Your task to perform on an android device: Is it going to rain today? Image 0: 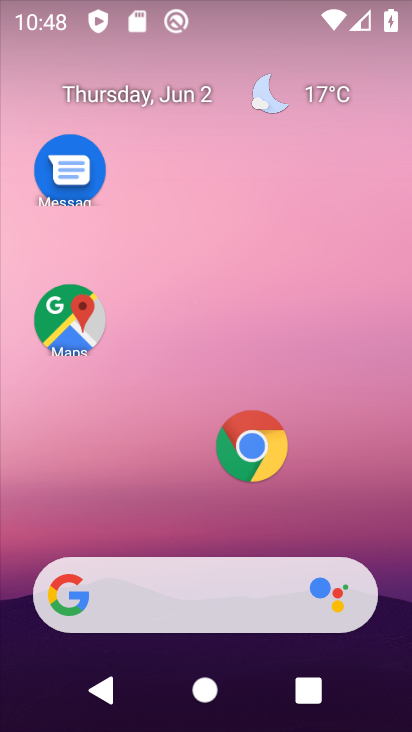
Step 0: drag from (354, 413) to (278, 100)
Your task to perform on an android device: Is it going to rain today? Image 1: 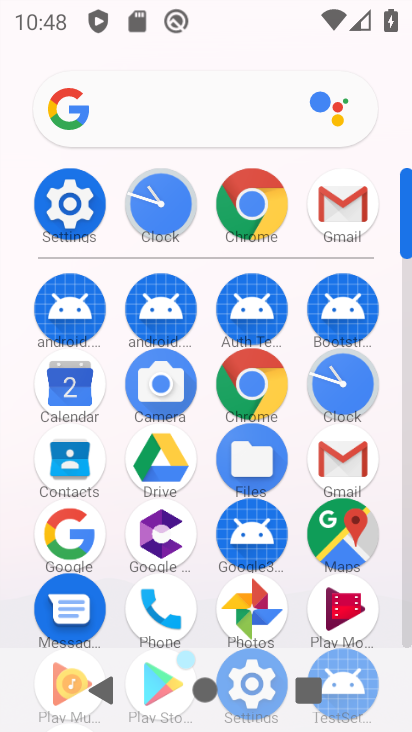
Step 1: click (262, 194)
Your task to perform on an android device: Is it going to rain today? Image 2: 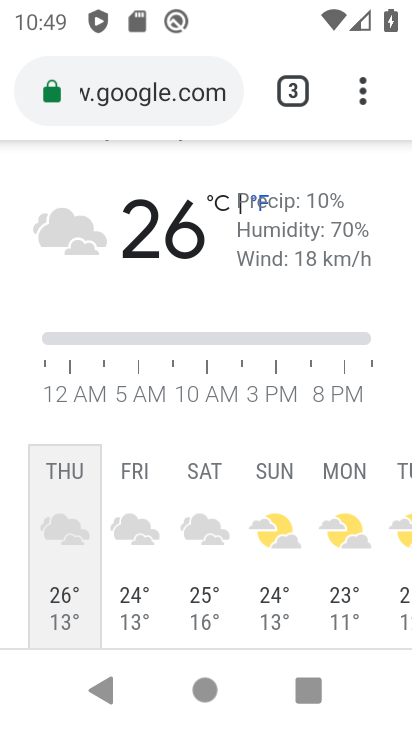
Step 2: click (158, 95)
Your task to perform on an android device: Is it going to rain today? Image 3: 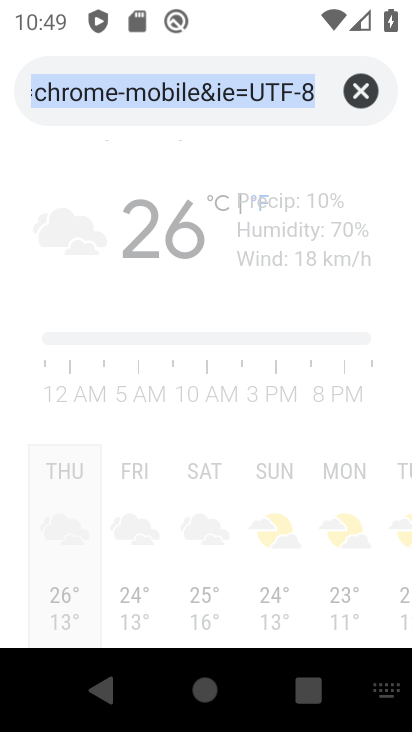
Step 3: click (364, 101)
Your task to perform on an android device: Is it going to rain today? Image 4: 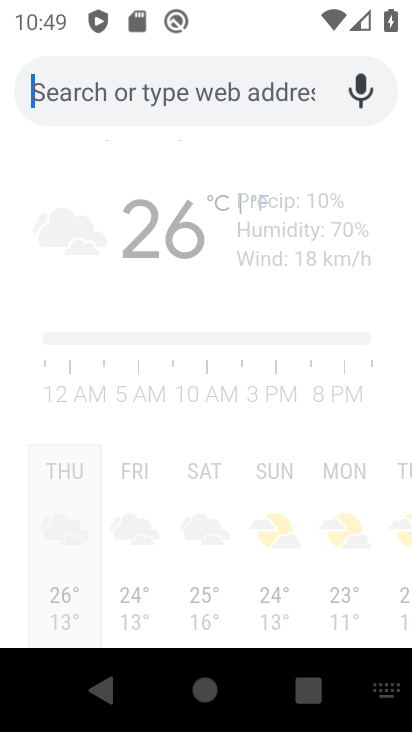
Step 4: type "Is it going to rain today?"
Your task to perform on an android device: Is it going to rain today? Image 5: 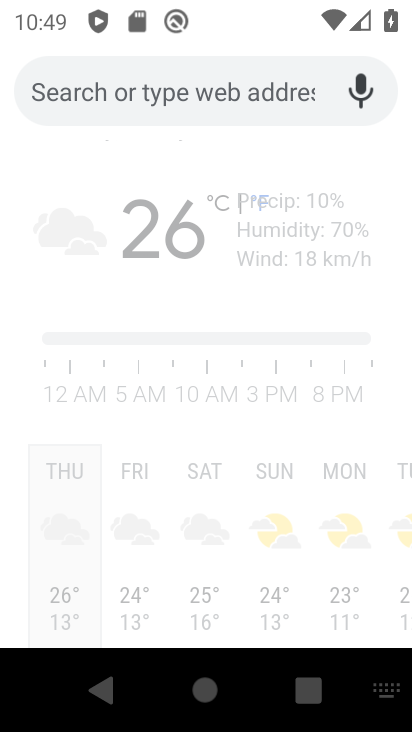
Step 5: click (252, 178)
Your task to perform on an android device: Is it going to rain today? Image 6: 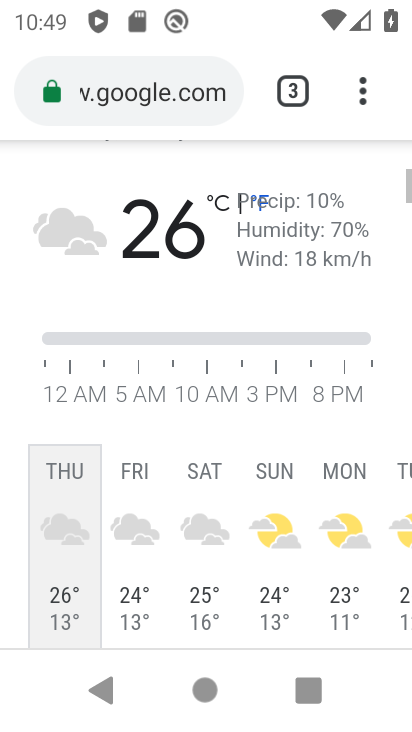
Step 6: task complete